Your task to perform on an android device: toggle javascript in the chrome app Image 0: 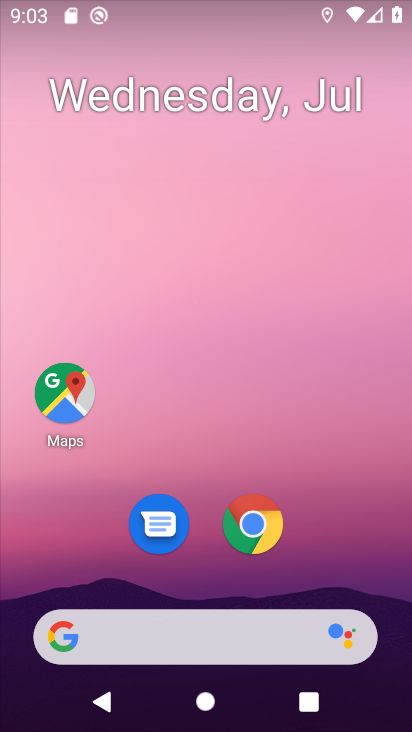
Step 0: click (265, 529)
Your task to perform on an android device: toggle javascript in the chrome app Image 1: 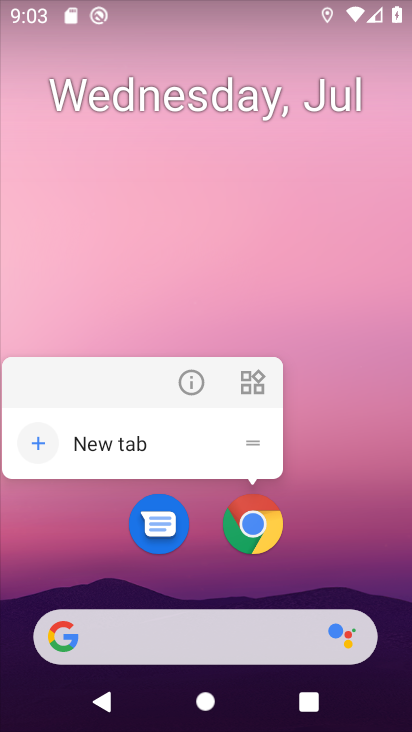
Step 1: click (265, 517)
Your task to perform on an android device: toggle javascript in the chrome app Image 2: 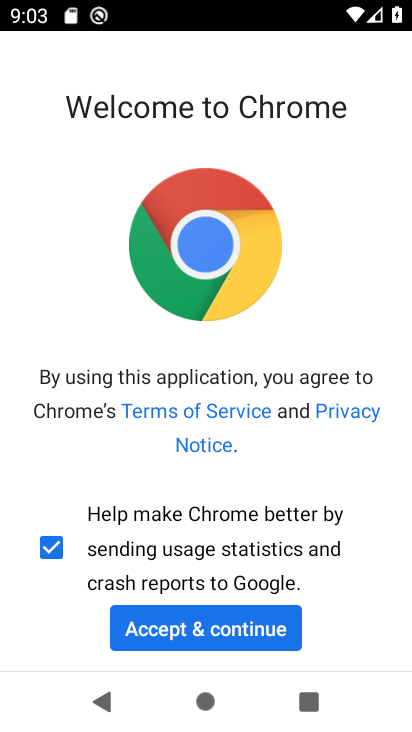
Step 2: click (255, 632)
Your task to perform on an android device: toggle javascript in the chrome app Image 3: 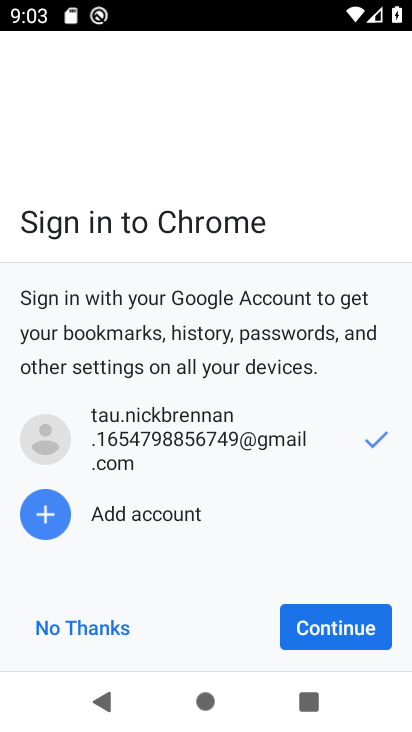
Step 3: click (297, 619)
Your task to perform on an android device: toggle javascript in the chrome app Image 4: 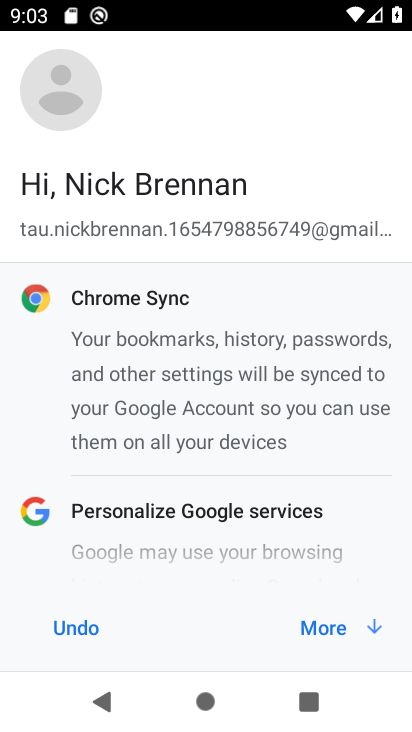
Step 4: click (311, 627)
Your task to perform on an android device: toggle javascript in the chrome app Image 5: 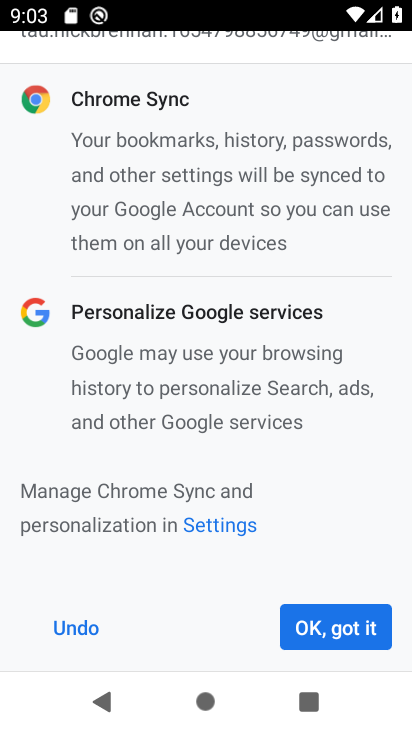
Step 5: click (335, 627)
Your task to perform on an android device: toggle javascript in the chrome app Image 6: 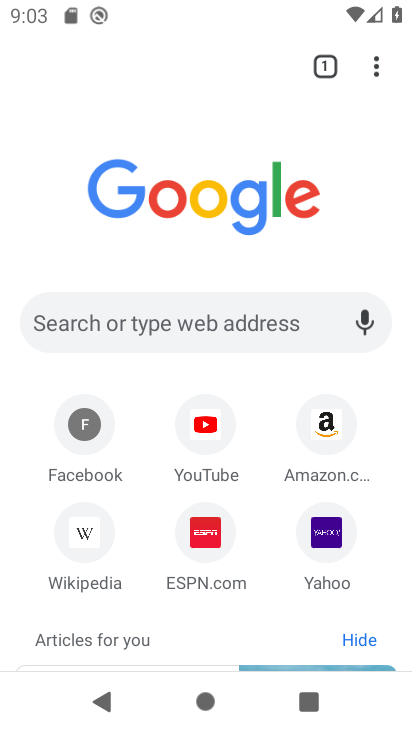
Step 6: click (375, 62)
Your task to perform on an android device: toggle javascript in the chrome app Image 7: 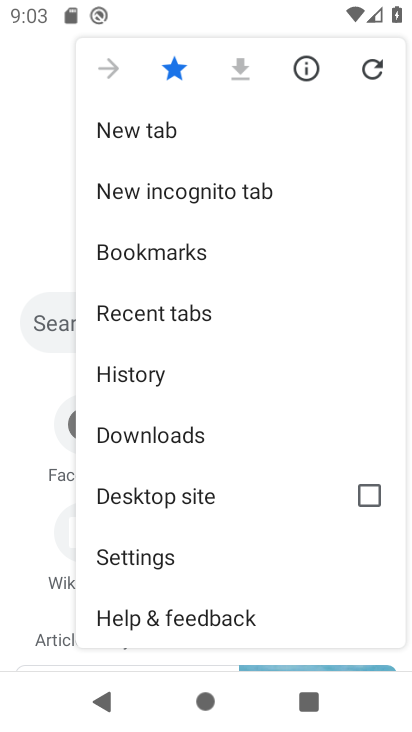
Step 7: click (162, 554)
Your task to perform on an android device: toggle javascript in the chrome app Image 8: 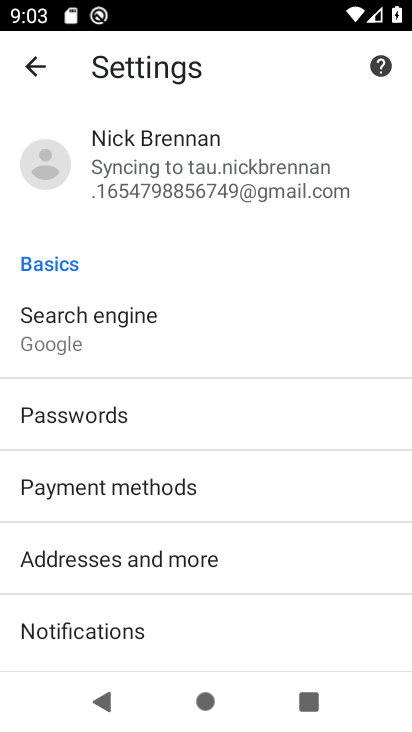
Step 8: drag from (265, 614) to (270, 410)
Your task to perform on an android device: toggle javascript in the chrome app Image 9: 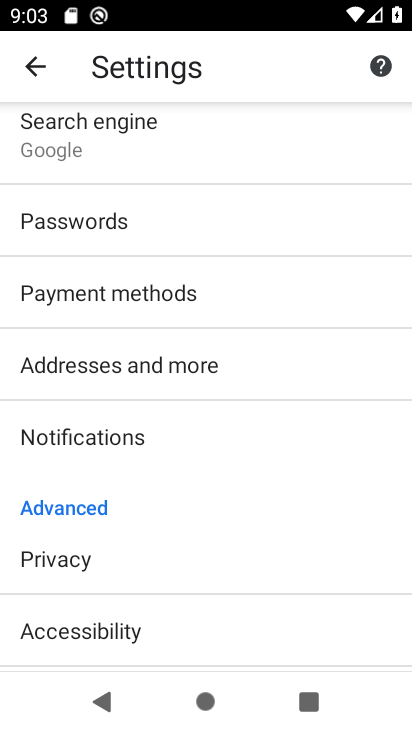
Step 9: drag from (253, 490) to (238, 266)
Your task to perform on an android device: toggle javascript in the chrome app Image 10: 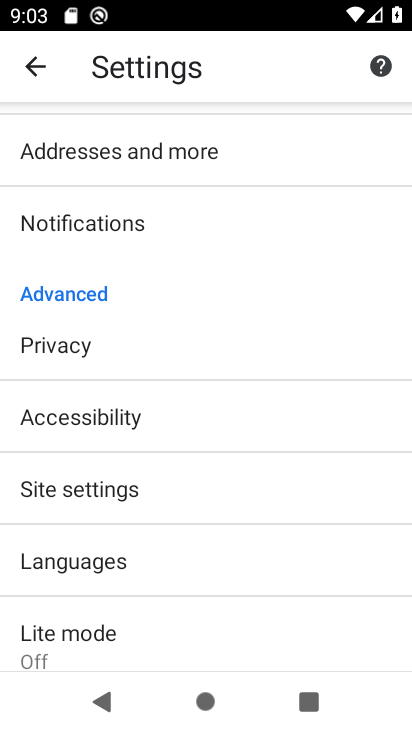
Step 10: click (110, 492)
Your task to perform on an android device: toggle javascript in the chrome app Image 11: 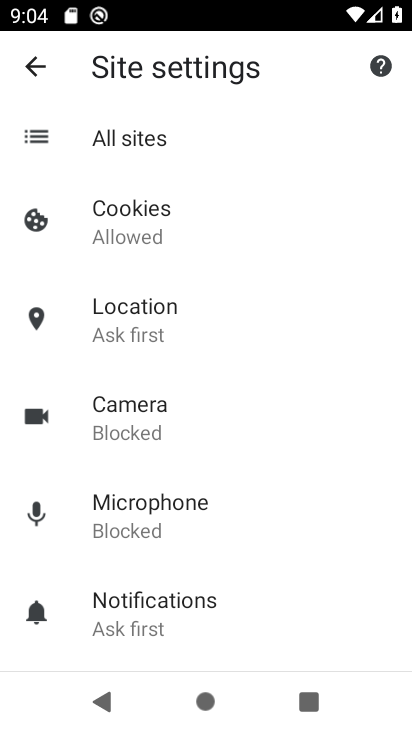
Step 11: drag from (252, 532) to (261, 219)
Your task to perform on an android device: toggle javascript in the chrome app Image 12: 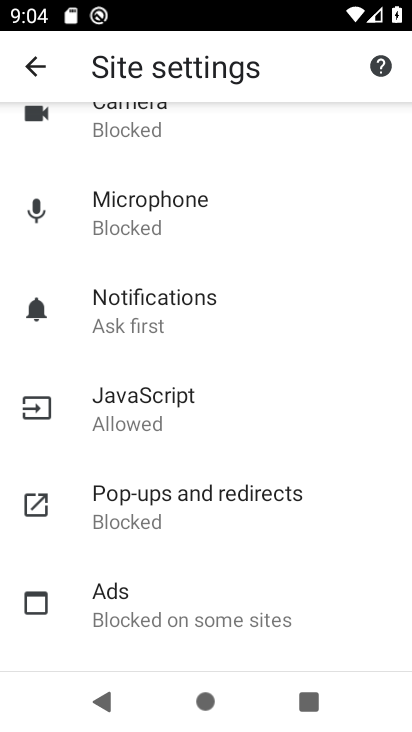
Step 12: click (156, 417)
Your task to perform on an android device: toggle javascript in the chrome app Image 13: 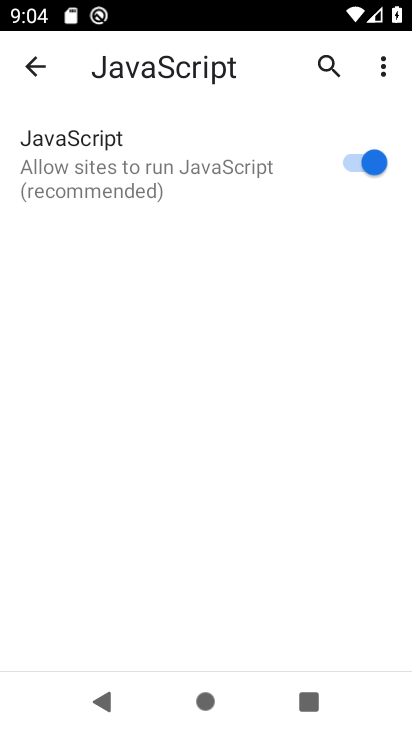
Step 13: click (364, 164)
Your task to perform on an android device: toggle javascript in the chrome app Image 14: 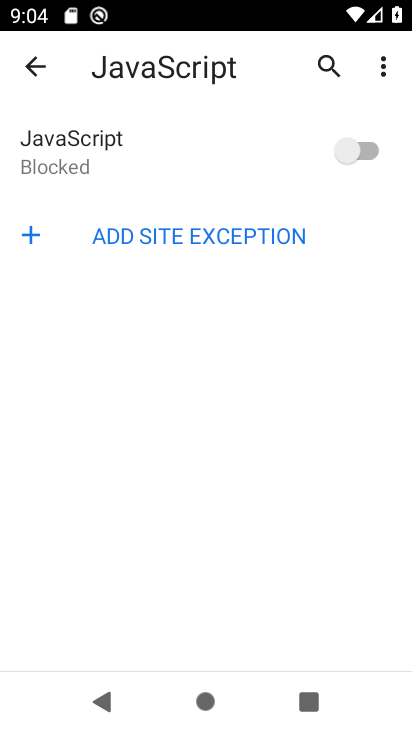
Step 14: task complete